Your task to perform on an android device: See recent photos Image 0: 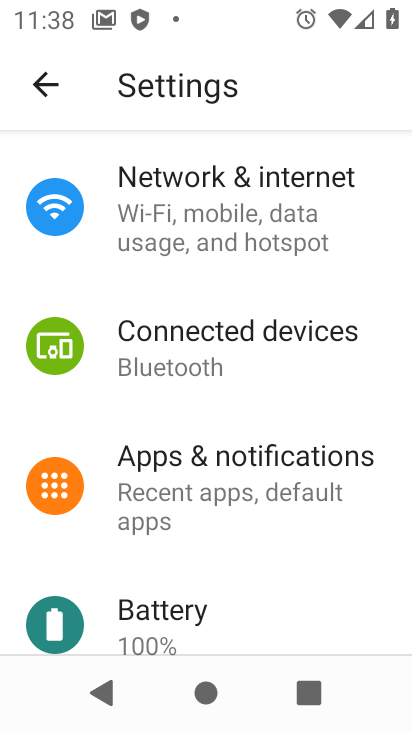
Step 0: press home button
Your task to perform on an android device: See recent photos Image 1: 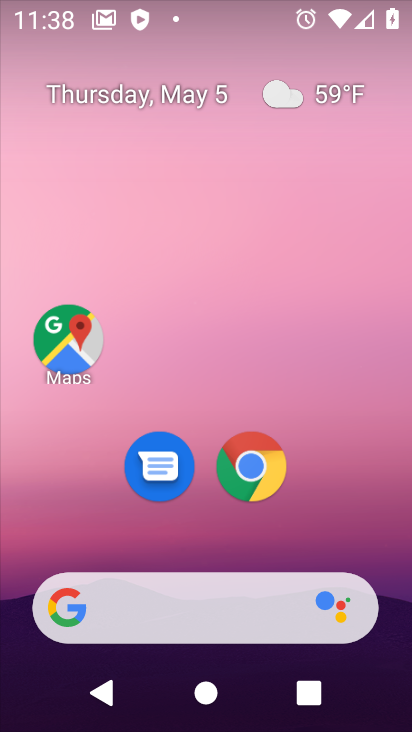
Step 1: drag from (165, 552) to (197, 177)
Your task to perform on an android device: See recent photos Image 2: 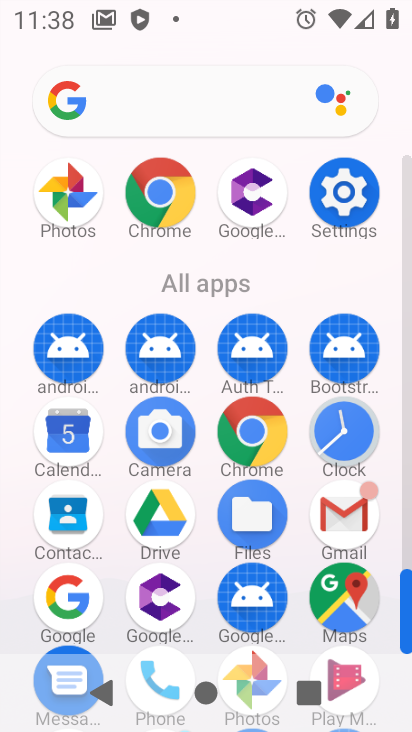
Step 2: click (64, 198)
Your task to perform on an android device: See recent photos Image 3: 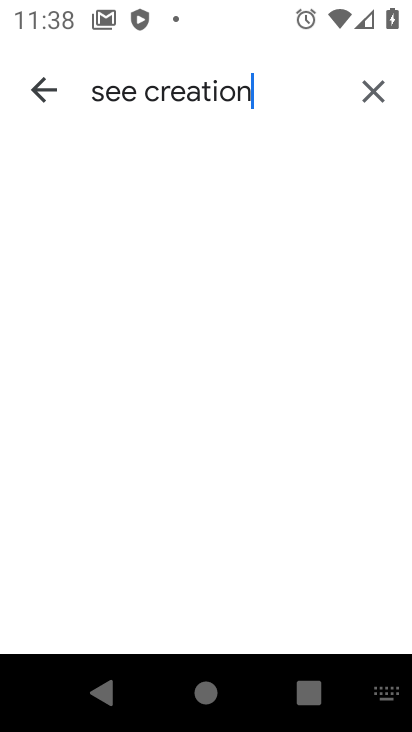
Step 3: click (386, 88)
Your task to perform on an android device: See recent photos Image 4: 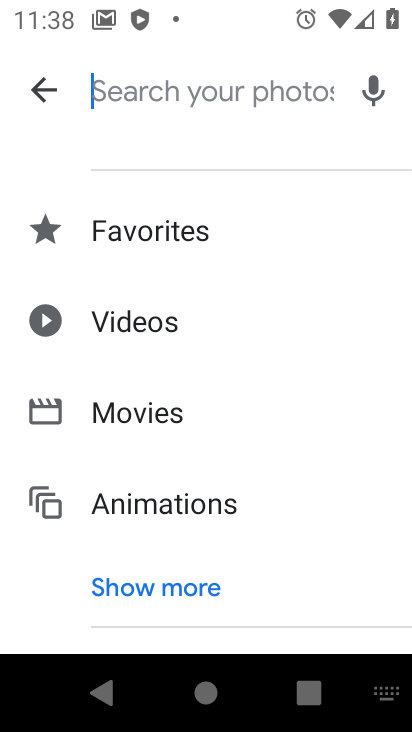
Step 4: click (31, 94)
Your task to perform on an android device: See recent photos Image 5: 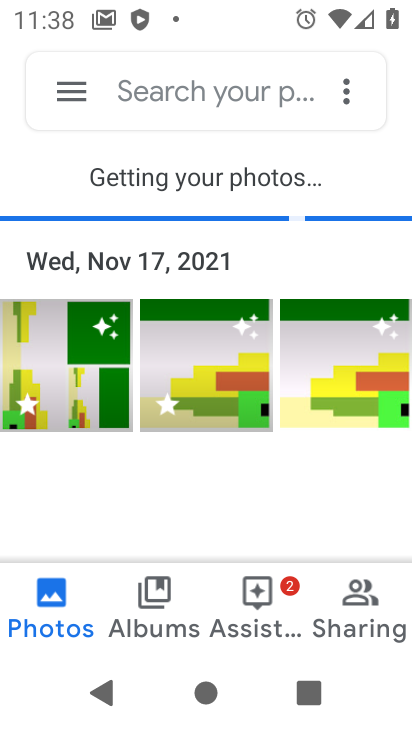
Step 5: task complete